Your task to perform on an android device: open a new tab in the chrome app Image 0: 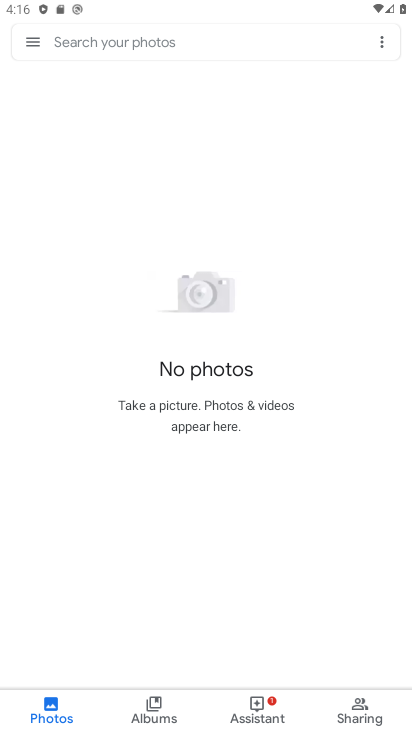
Step 0: press home button
Your task to perform on an android device: open a new tab in the chrome app Image 1: 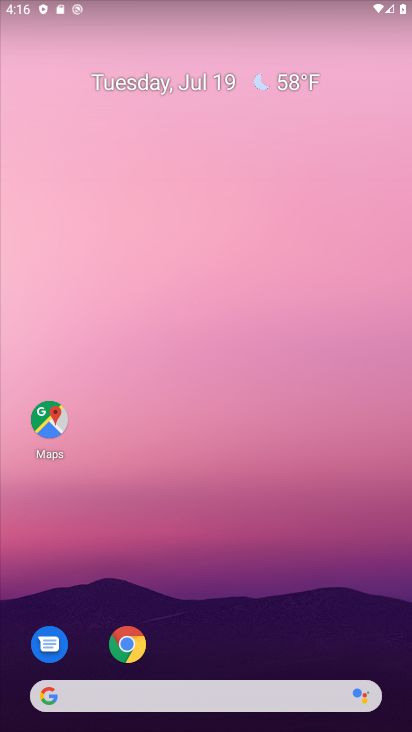
Step 1: click (138, 643)
Your task to perform on an android device: open a new tab in the chrome app Image 2: 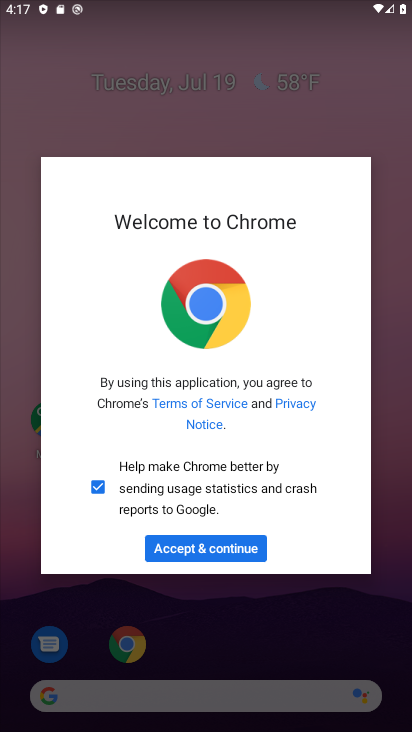
Step 2: click (230, 553)
Your task to perform on an android device: open a new tab in the chrome app Image 3: 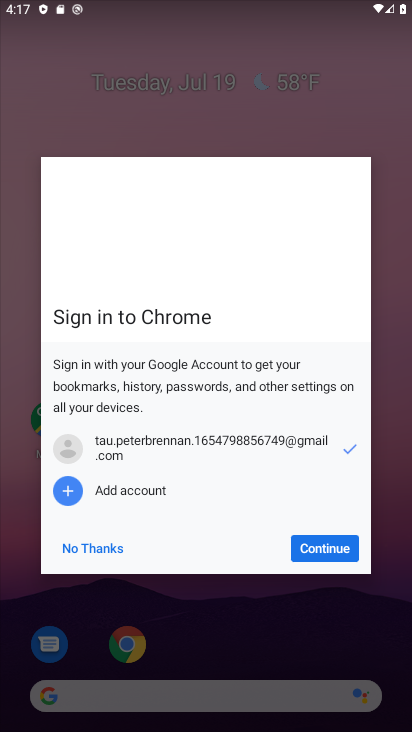
Step 3: click (317, 556)
Your task to perform on an android device: open a new tab in the chrome app Image 4: 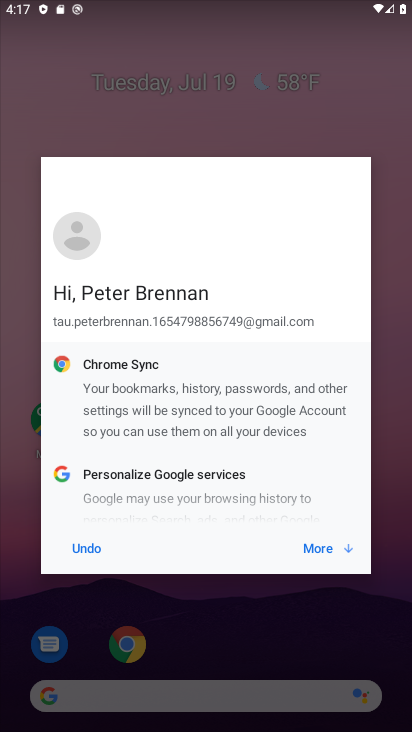
Step 4: click (321, 550)
Your task to perform on an android device: open a new tab in the chrome app Image 5: 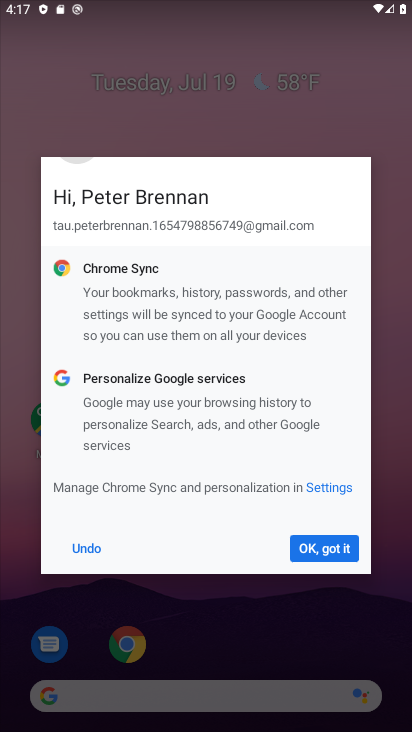
Step 5: click (321, 550)
Your task to perform on an android device: open a new tab in the chrome app Image 6: 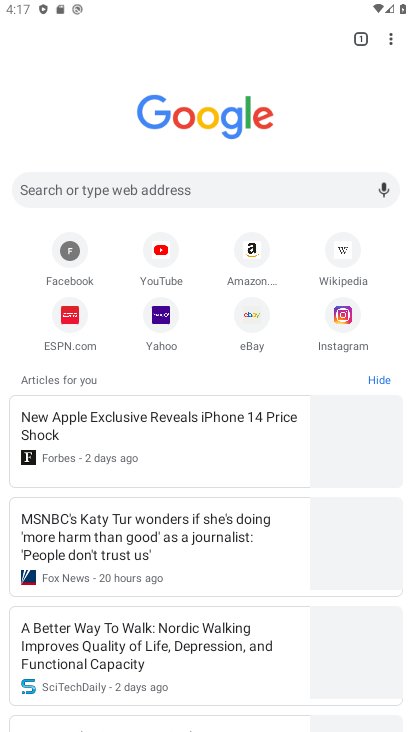
Step 6: task complete